Your task to perform on an android device: Search for macbook on ebay, select the first entry, add it to the cart, then select checkout. Image 0: 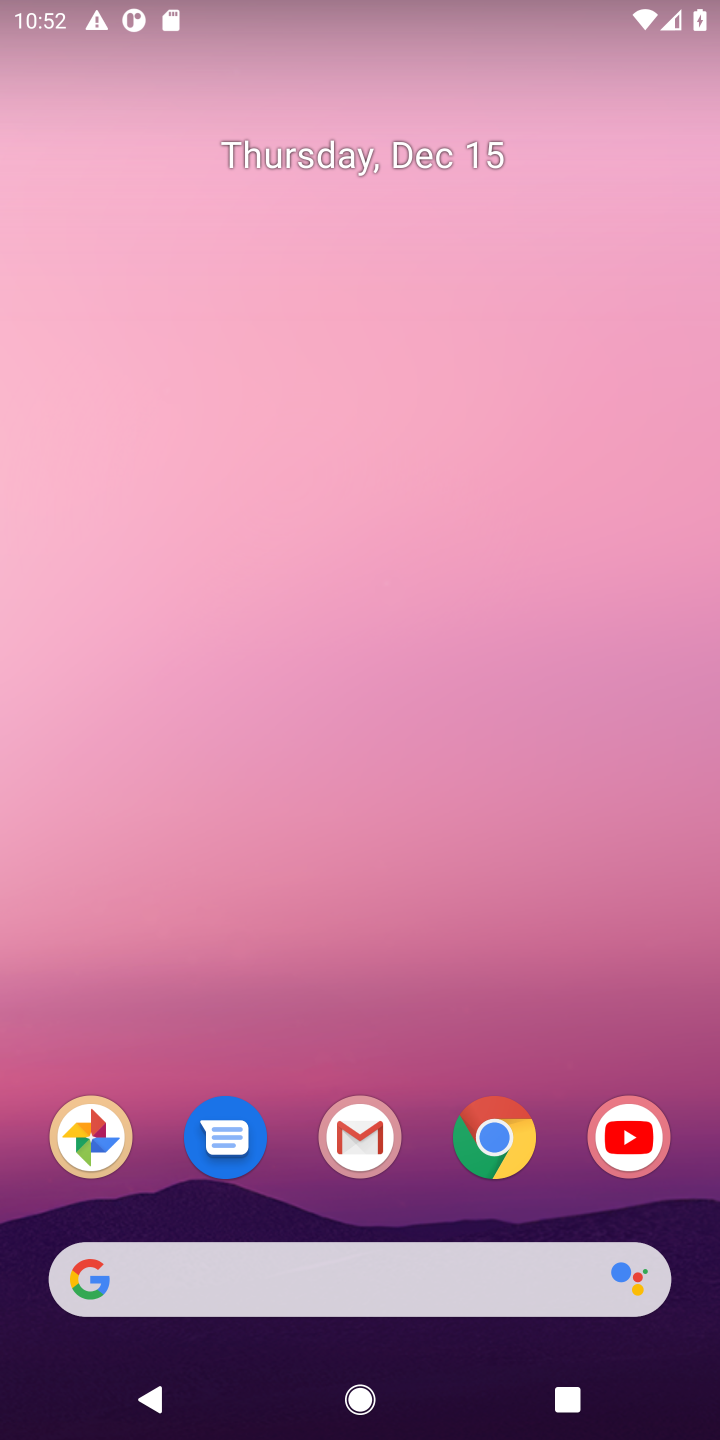
Step 0: press home button
Your task to perform on an android device: Search for macbook on ebay, select the first entry, add it to the cart, then select checkout. Image 1: 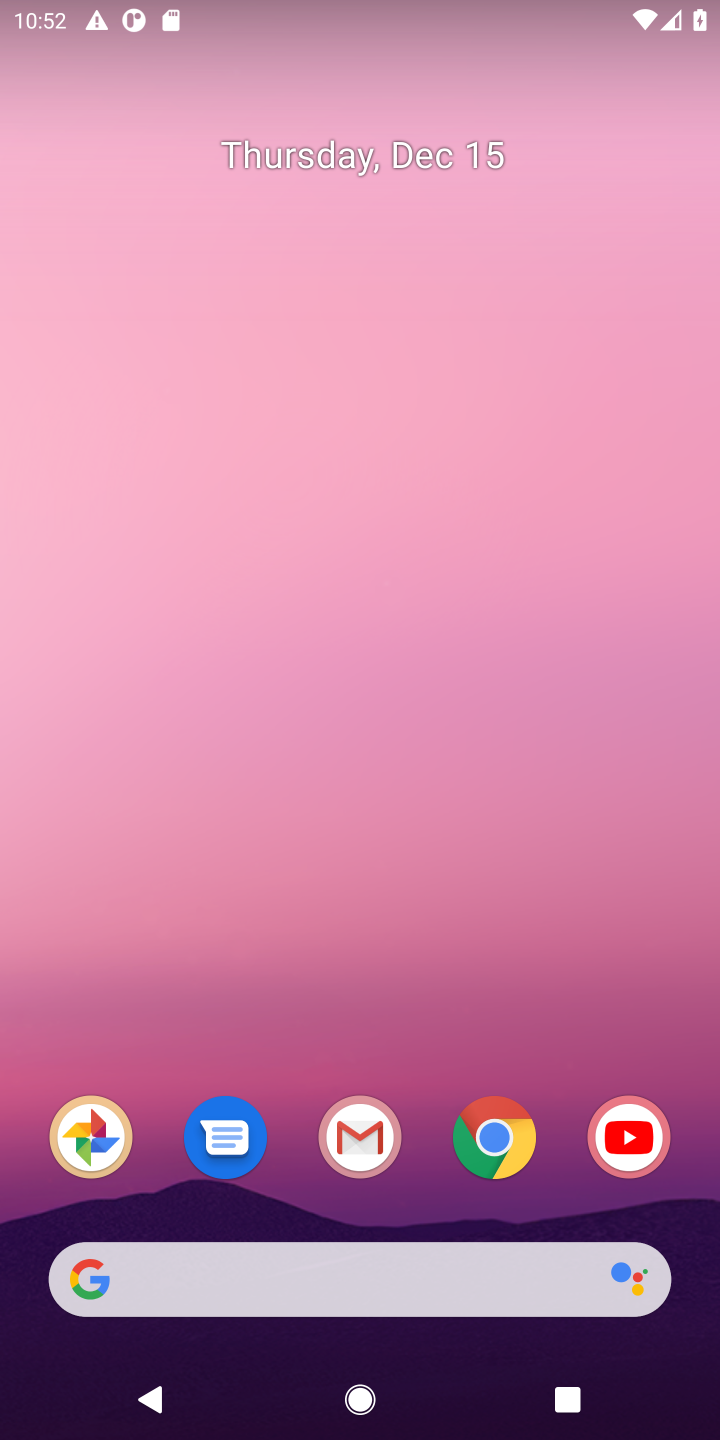
Step 1: drag from (329, 1266) to (254, 265)
Your task to perform on an android device: Search for macbook on ebay, select the first entry, add it to the cart, then select checkout. Image 2: 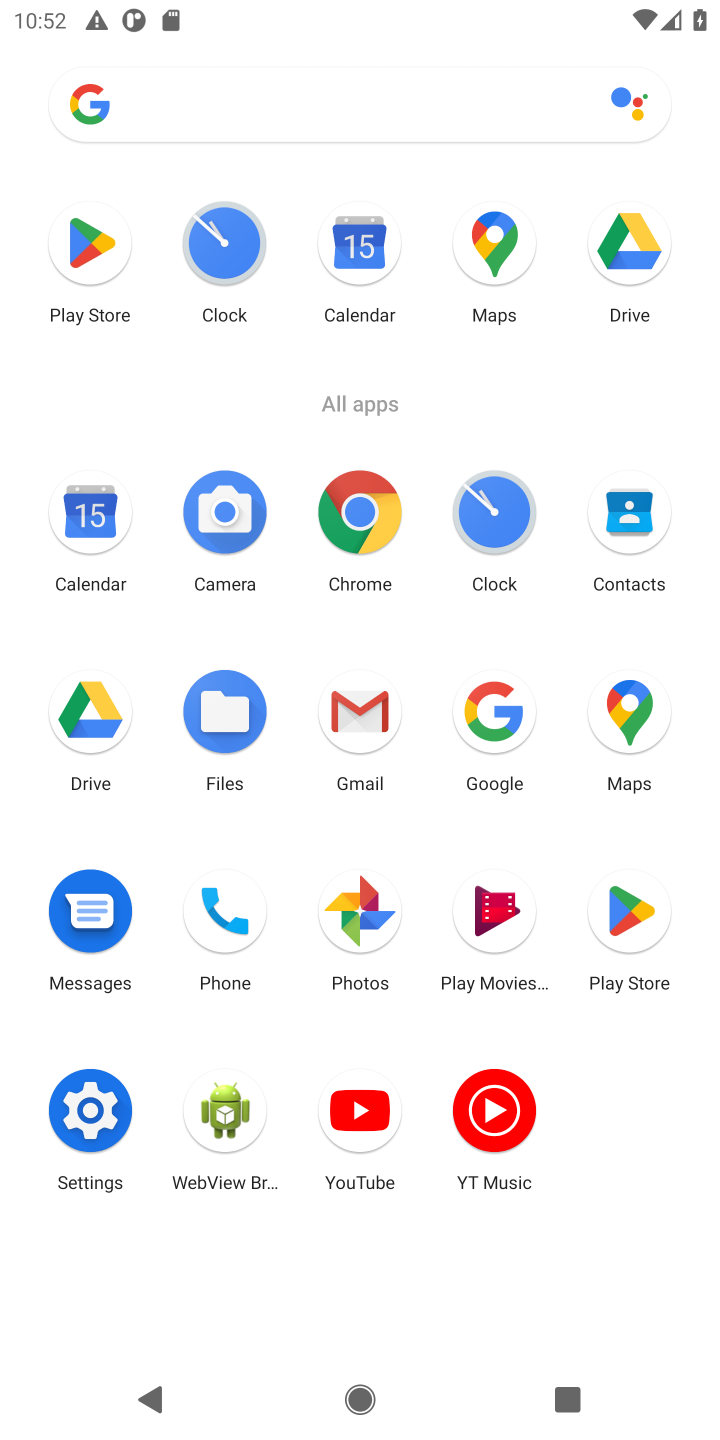
Step 2: click (499, 714)
Your task to perform on an android device: Search for macbook on ebay, select the first entry, add it to the cart, then select checkout. Image 3: 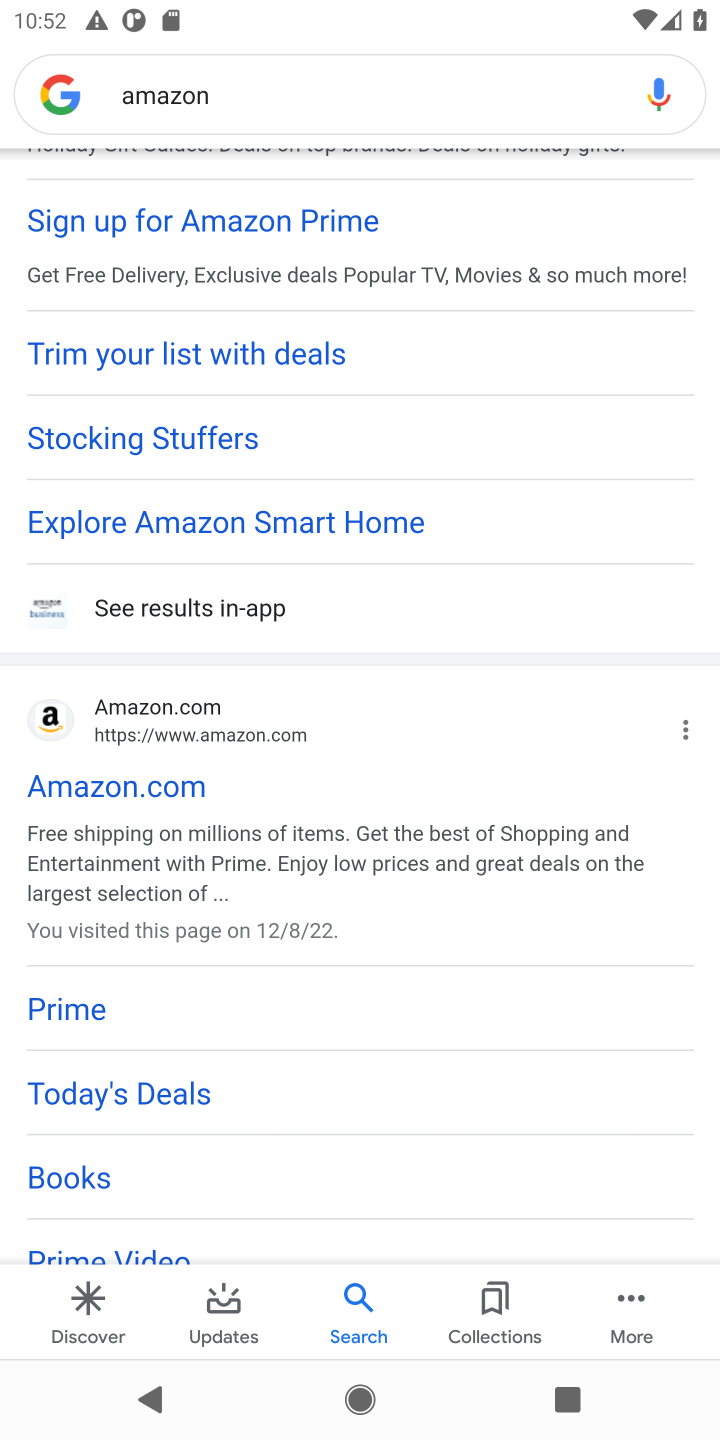
Step 3: click (231, 110)
Your task to perform on an android device: Search for macbook on ebay, select the first entry, add it to the cart, then select checkout. Image 4: 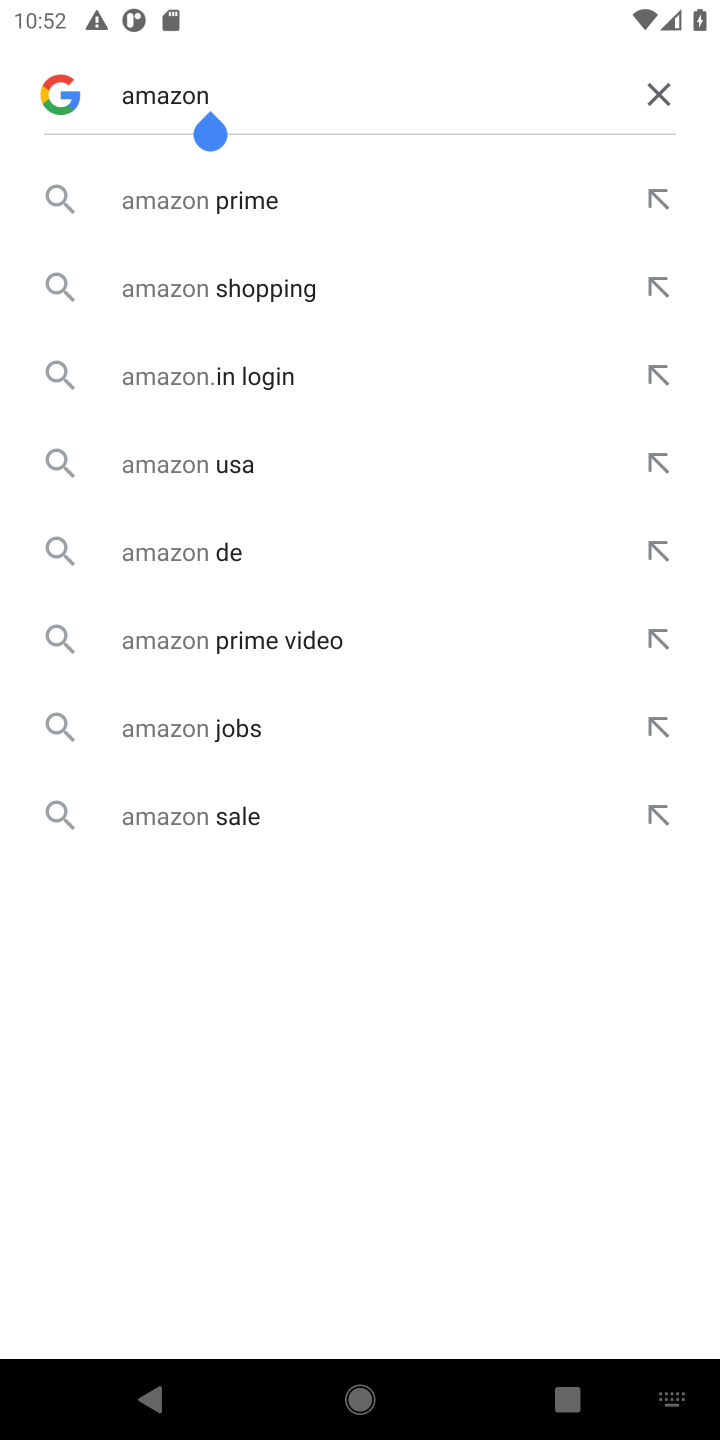
Step 4: click (666, 108)
Your task to perform on an android device: Search for macbook on ebay, select the first entry, add it to the cart, then select checkout. Image 5: 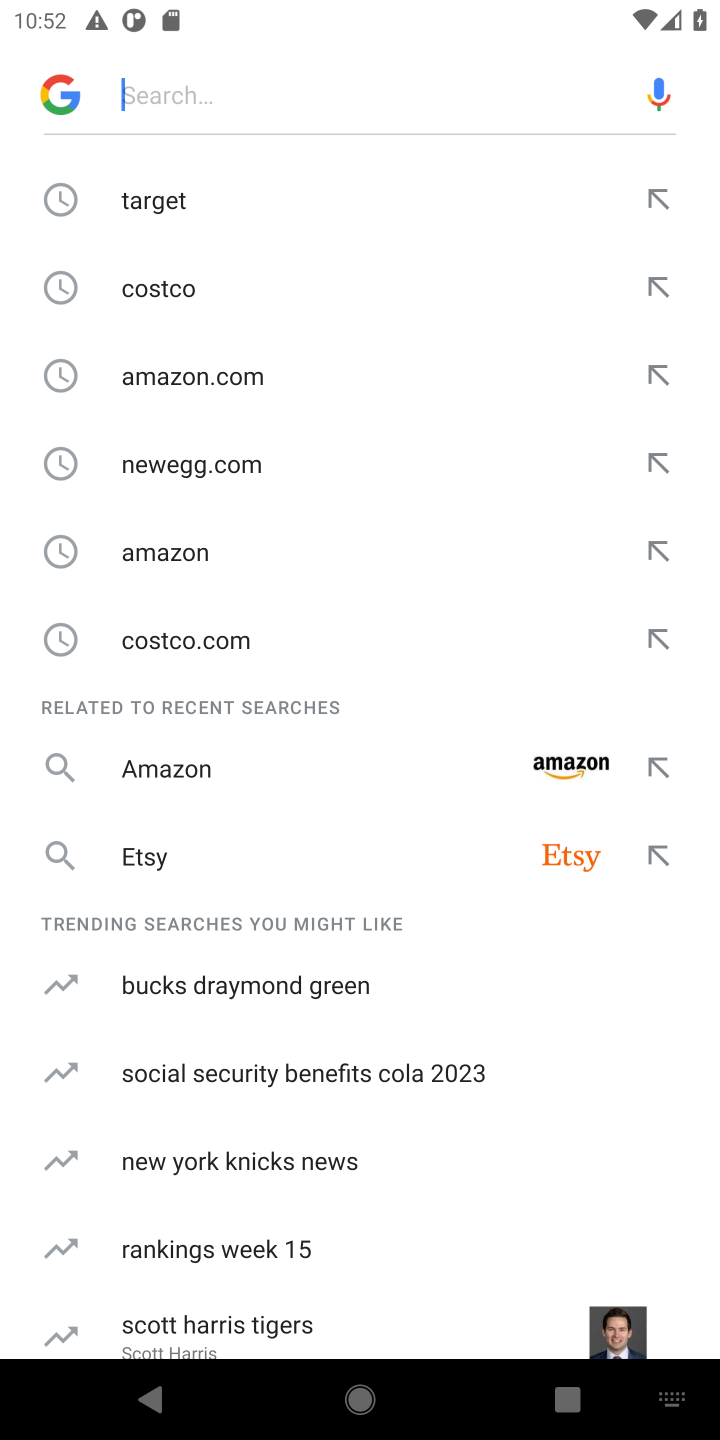
Step 5: drag from (328, 1198) to (328, 387)
Your task to perform on an android device: Search for macbook on ebay, select the first entry, add it to the cart, then select checkout. Image 6: 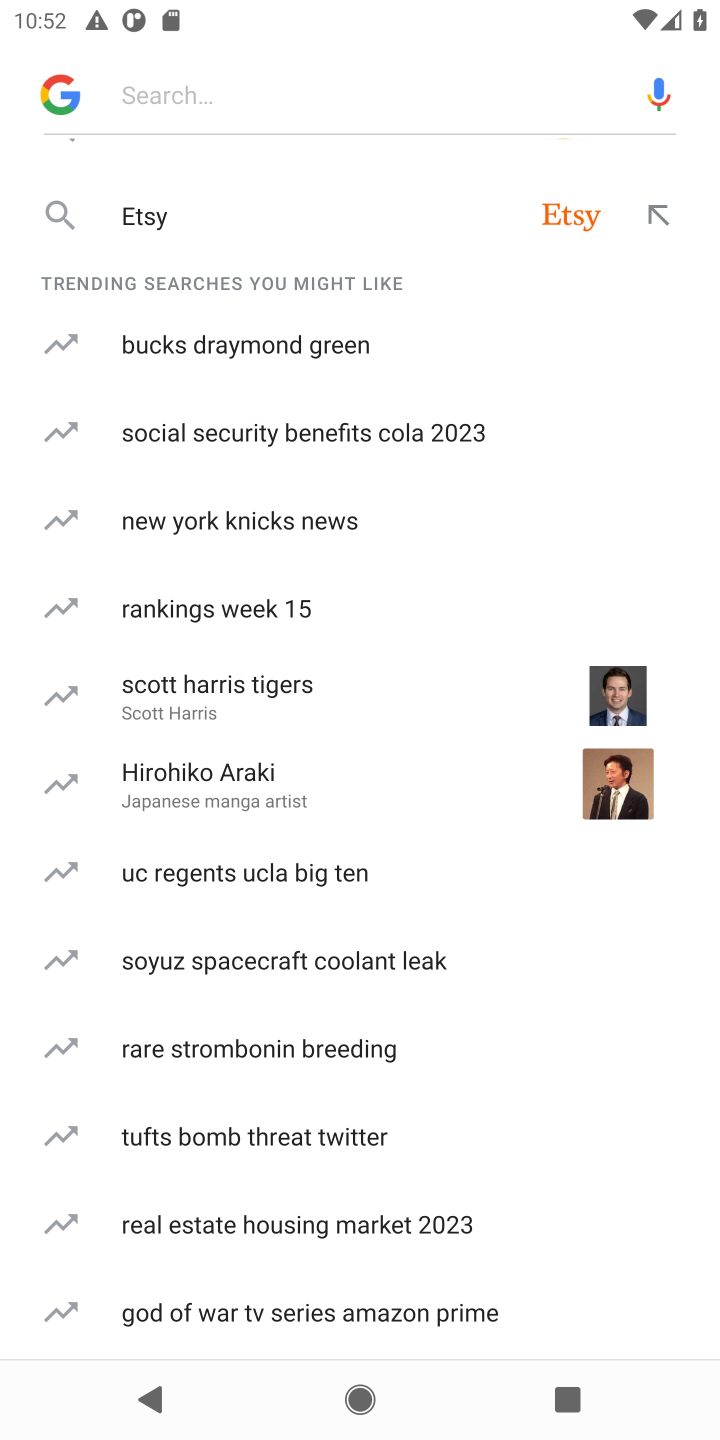
Step 6: type "ebay"
Your task to perform on an android device: Search for macbook on ebay, select the first entry, add it to the cart, then select checkout. Image 7: 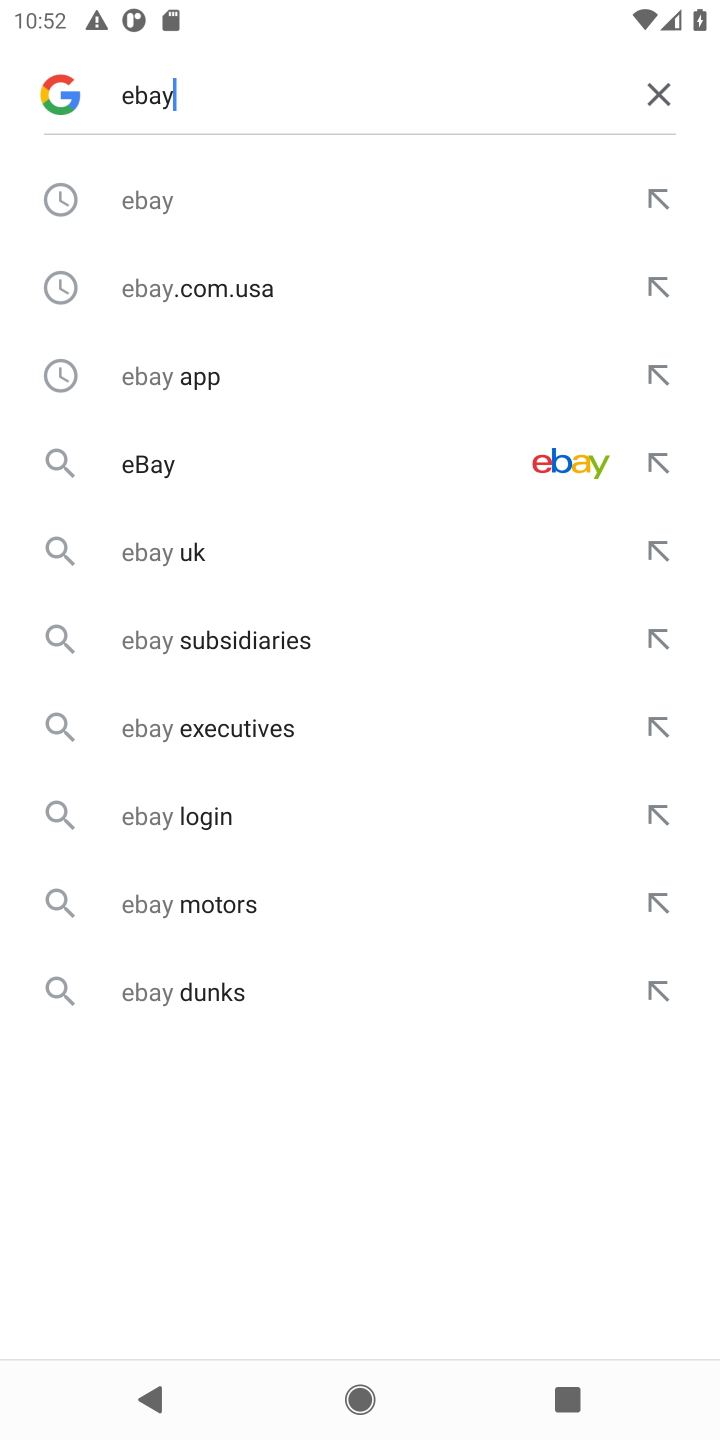
Step 7: click (168, 194)
Your task to perform on an android device: Search for macbook on ebay, select the first entry, add it to the cart, then select checkout. Image 8: 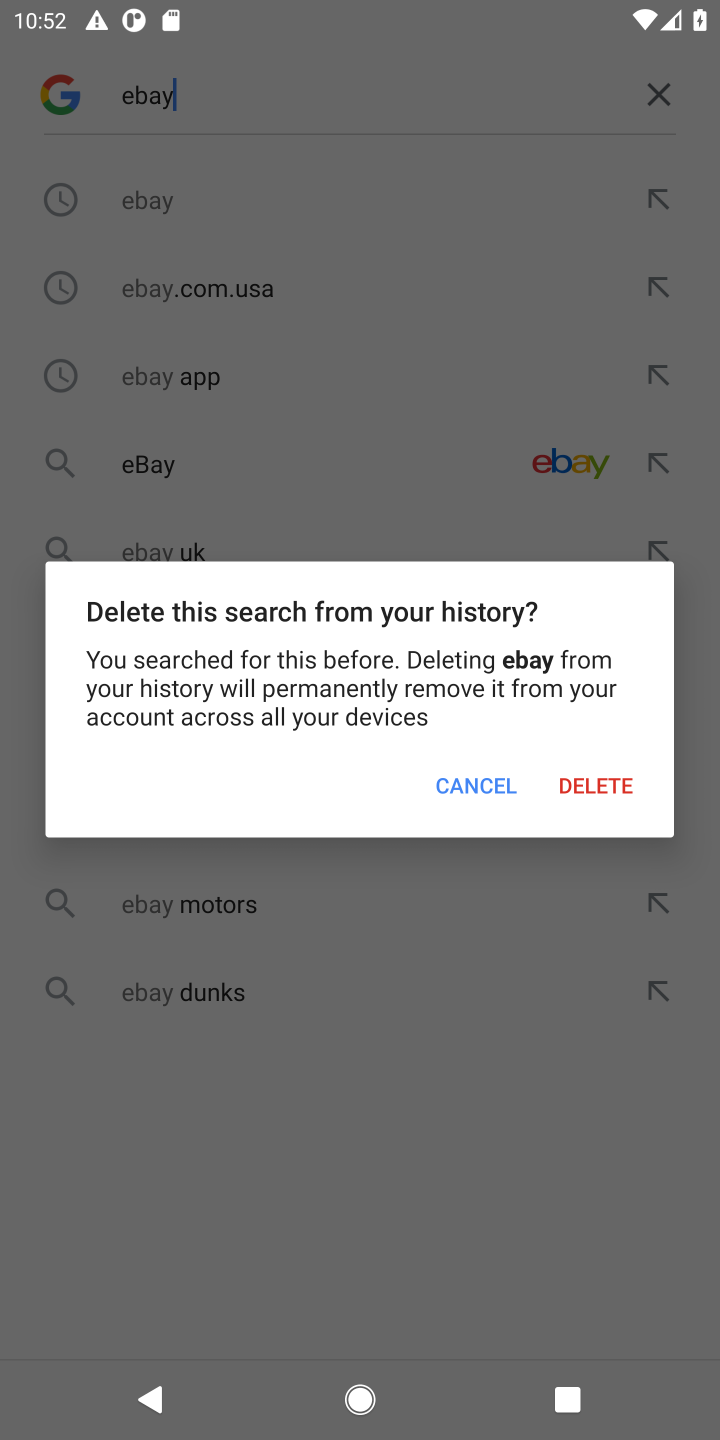
Step 8: click (479, 782)
Your task to perform on an android device: Search for macbook on ebay, select the first entry, add it to the cart, then select checkout. Image 9: 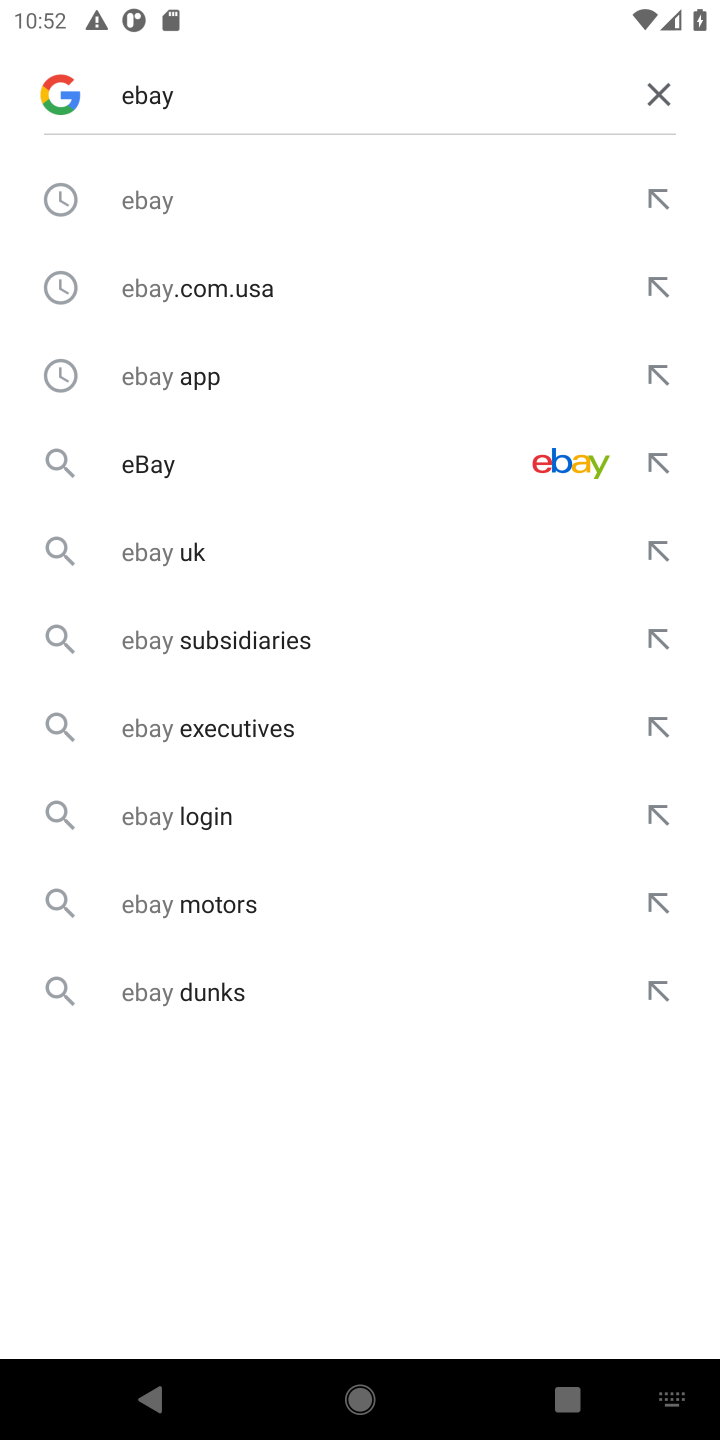
Step 9: click (660, 199)
Your task to perform on an android device: Search for macbook on ebay, select the first entry, add it to the cart, then select checkout. Image 10: 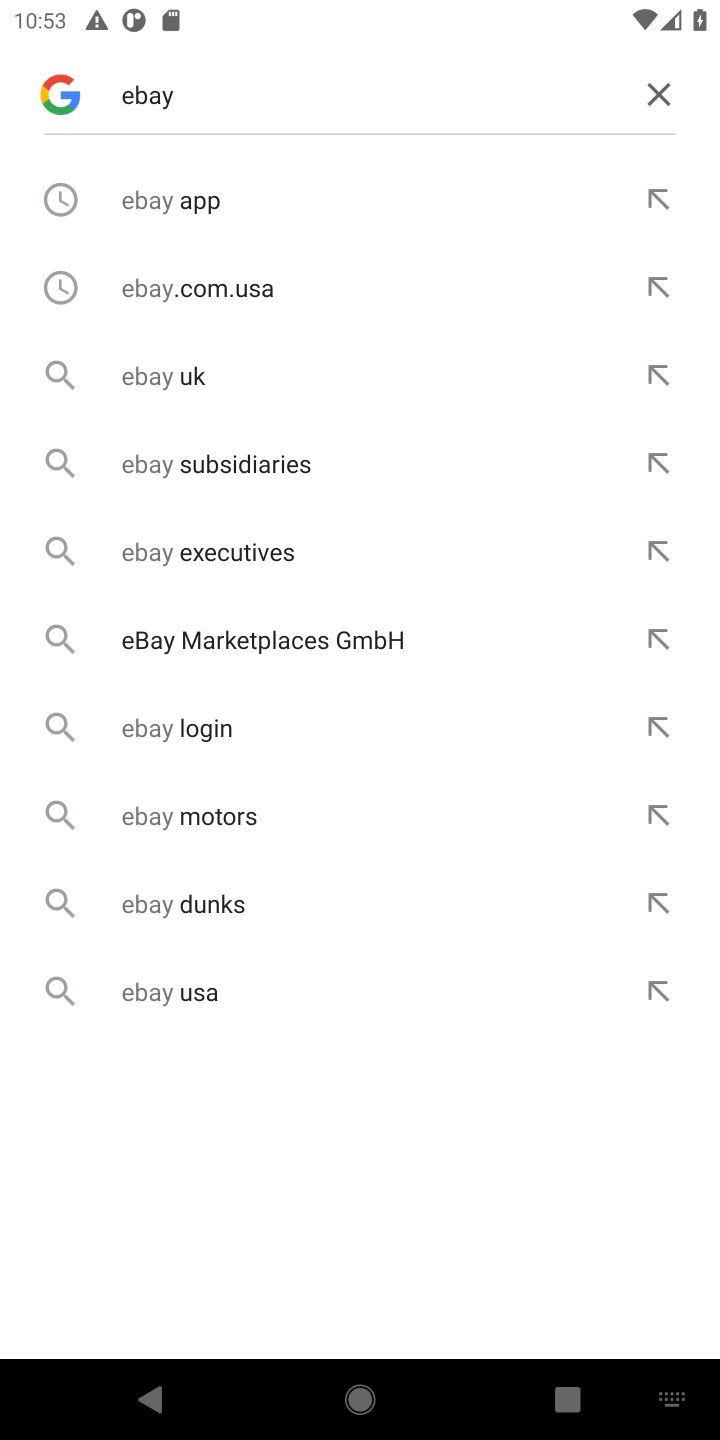
Step 10: click (176, 199)
Your task to perform on an android device: Search for macbook on ebay, select the first entry, add it to the cart, then select checkout. Image 11: 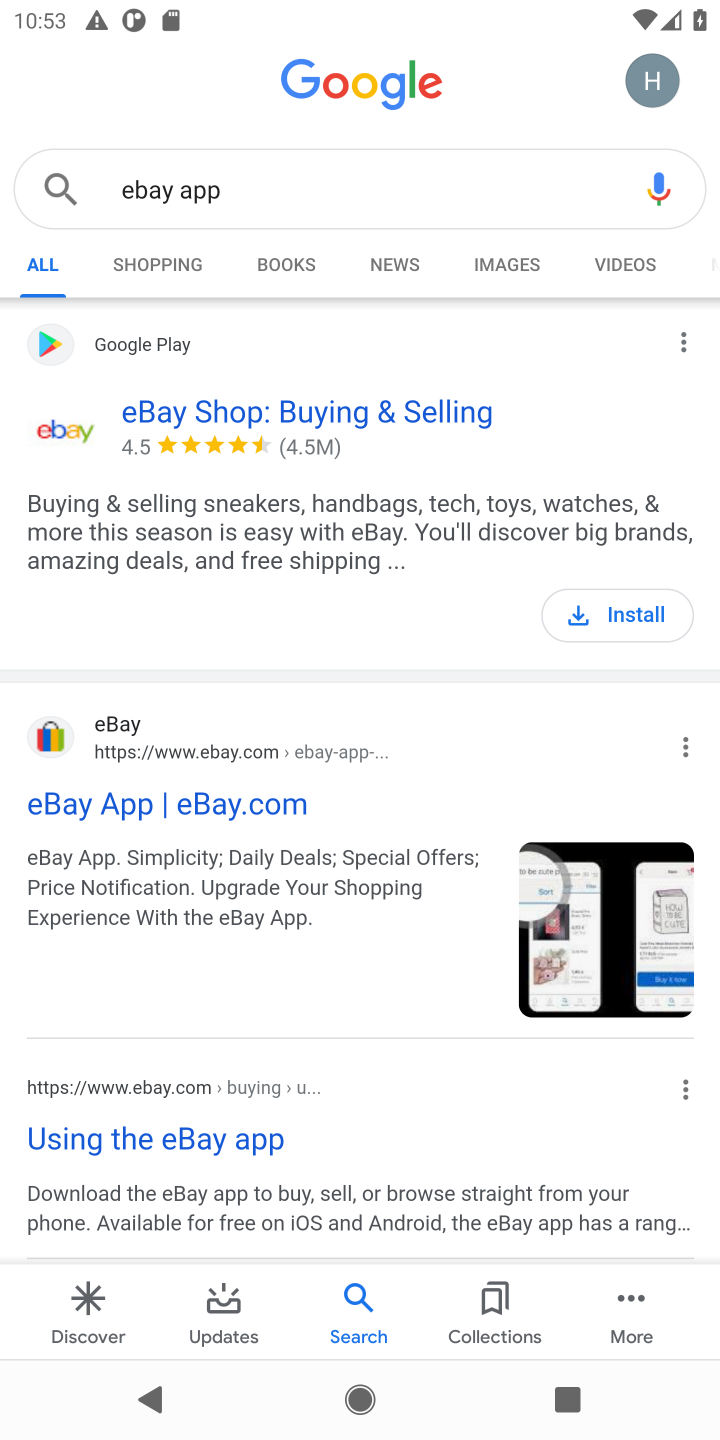
Step 11: click (107, 807)
Your task to perform on an android device: Search for macbook on ebay, select the first entry, add it to the cart, then select checkout. Image 12: 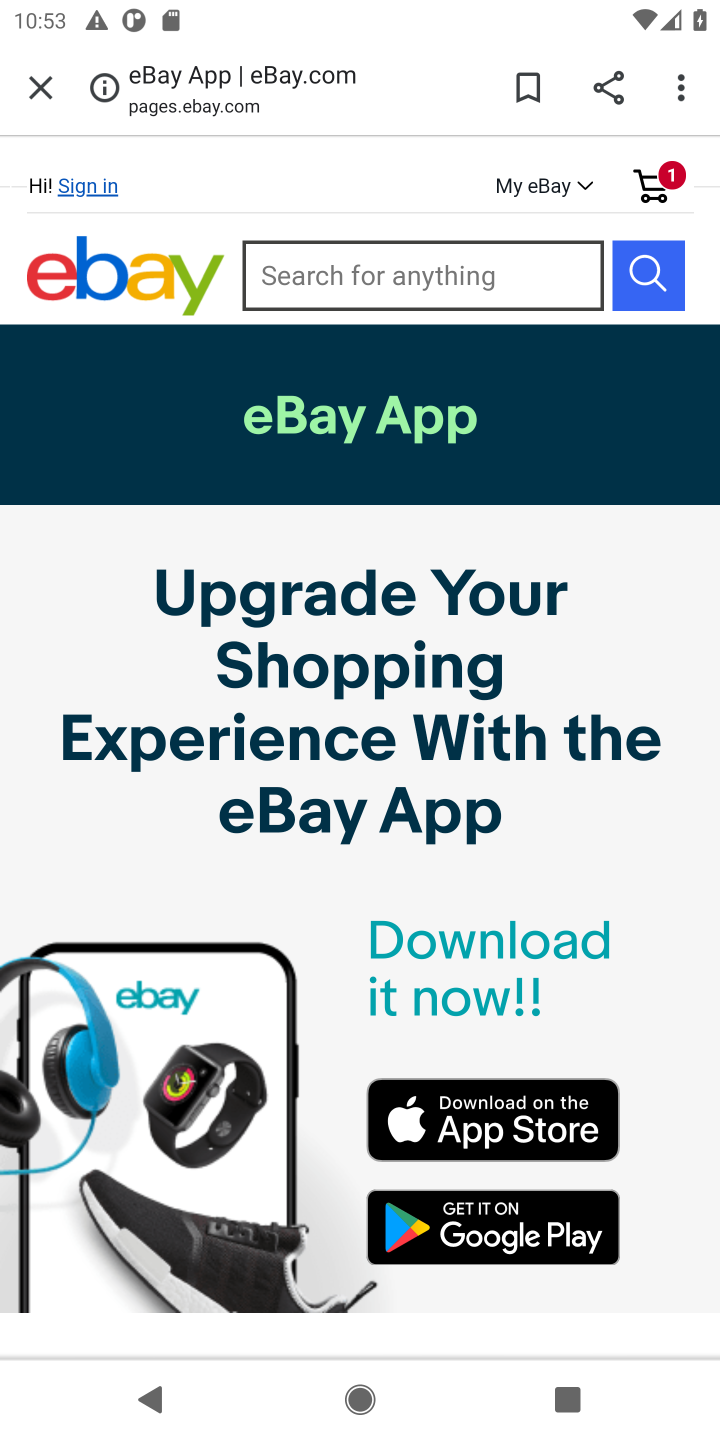
Step 12: click (300, 275)
Your task to perform on an android device: Search for macbook on ebay, select the first entry, add it to the cart, then select checkout. Image 13: 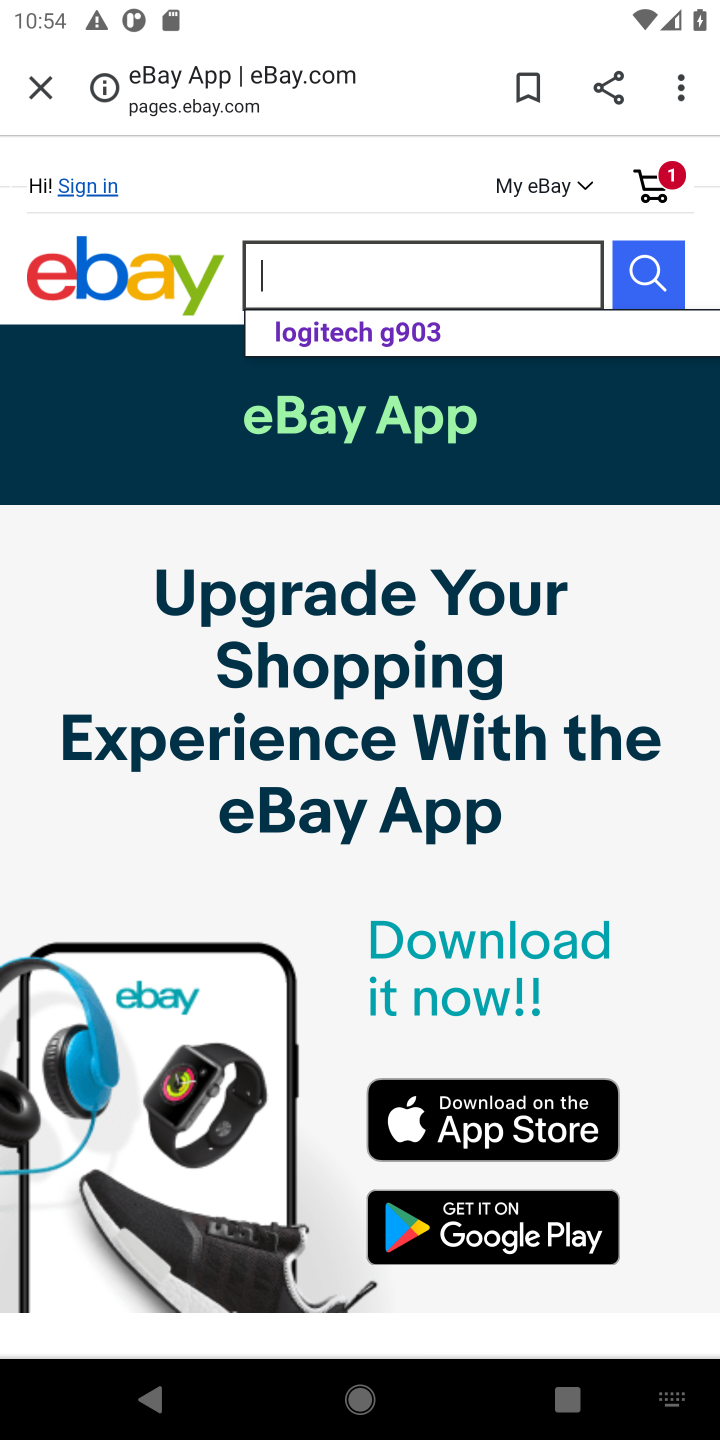
Step 13: type "macbook"
Your task to perform on an android device: Search for macbook on ebay, select the first entry, add it to the cart, then select checkout. Image 14: 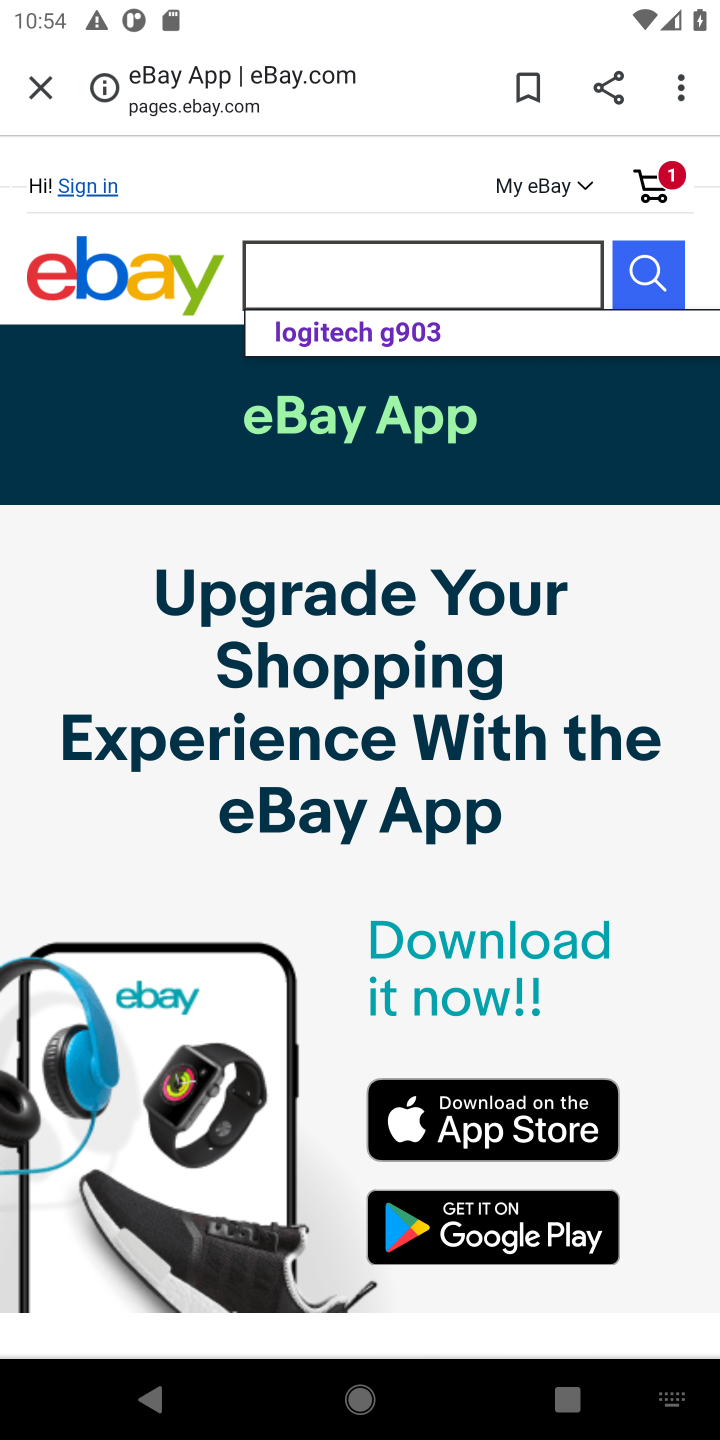
Step 14: click (642, 268)
Your task to perform on an android device: Search for macbook on ebay, select the first entry, add it to the cart, then select checkout. Image 15: 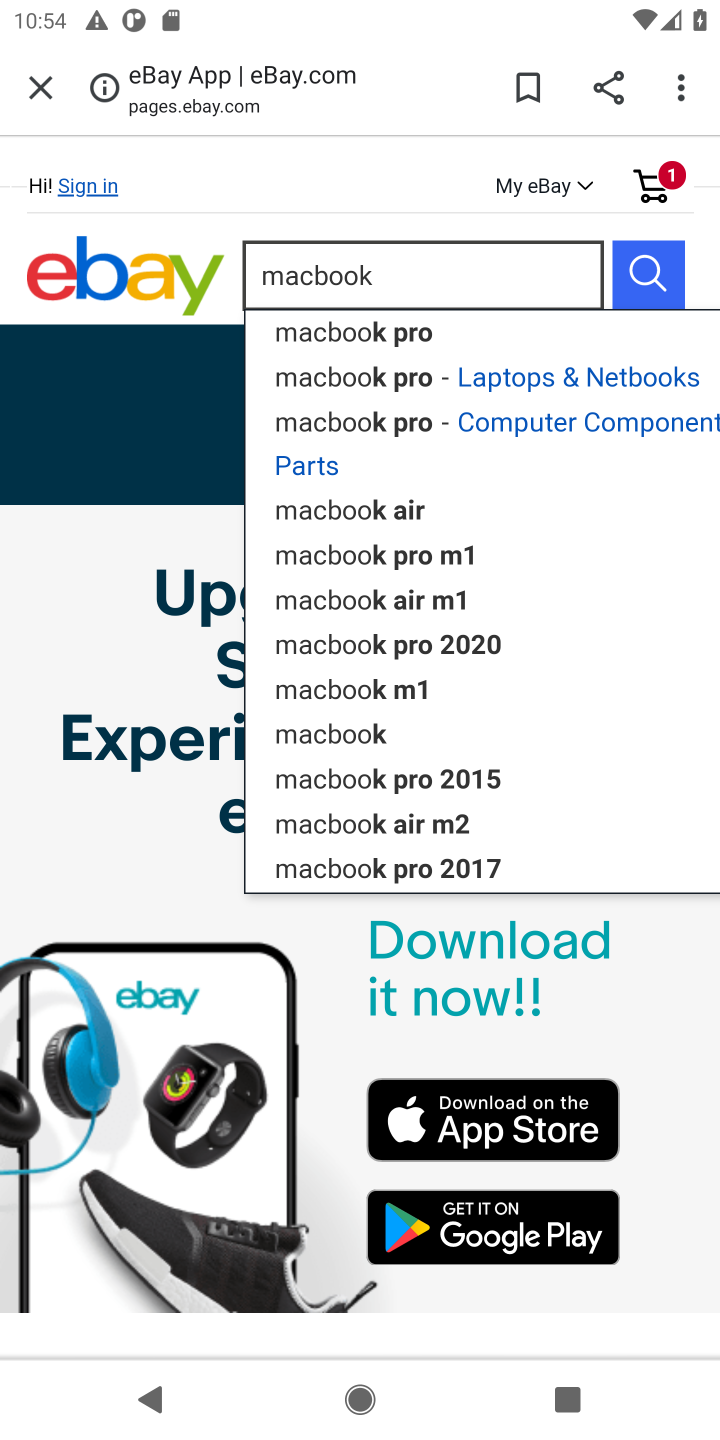
Step 15: click (351, 734)
Your task to perform on an android device: Search for macbook on ebay, select the first entry, add it to the cart, then select checkout. Image 16: 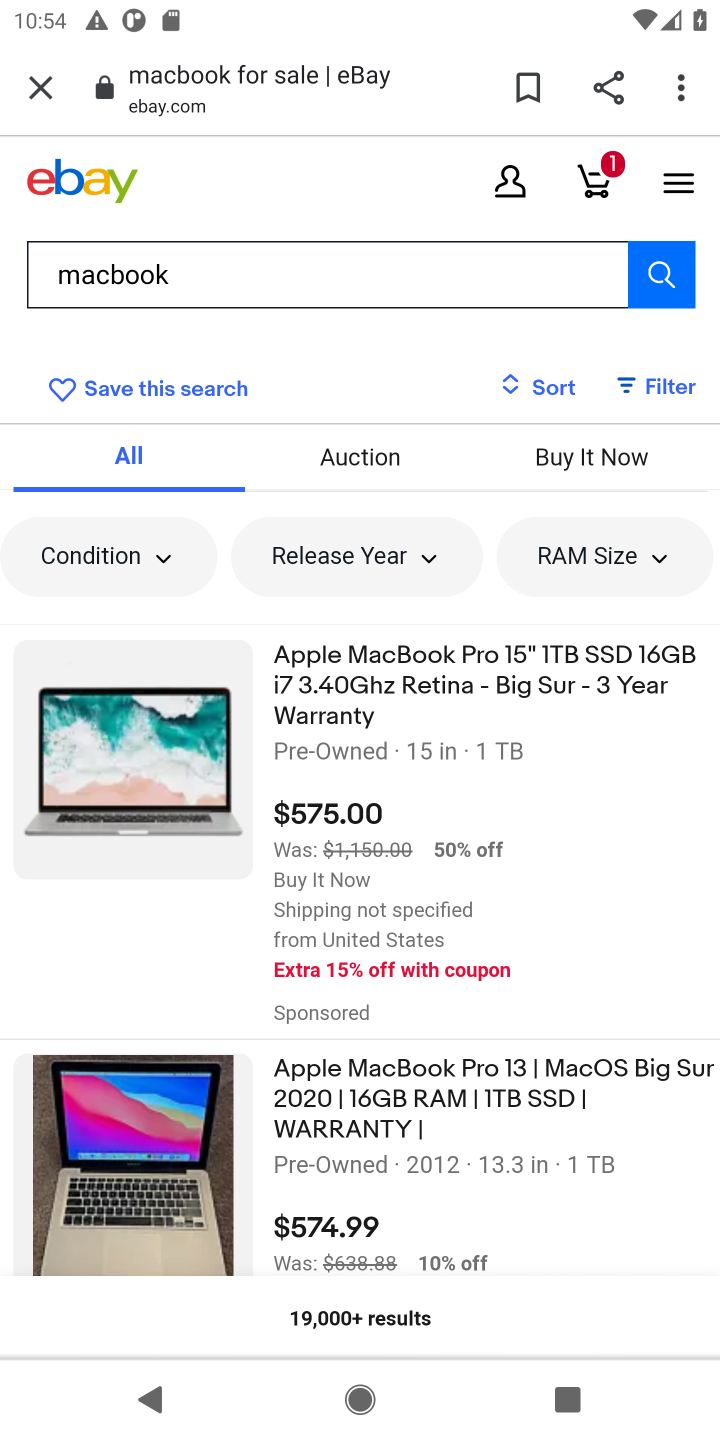
Step 16: click (335, 686)
Your task to perform on an android device: Search for macbook on ebay, select the first entry, add it to the cart, then select checkout. Image 17: 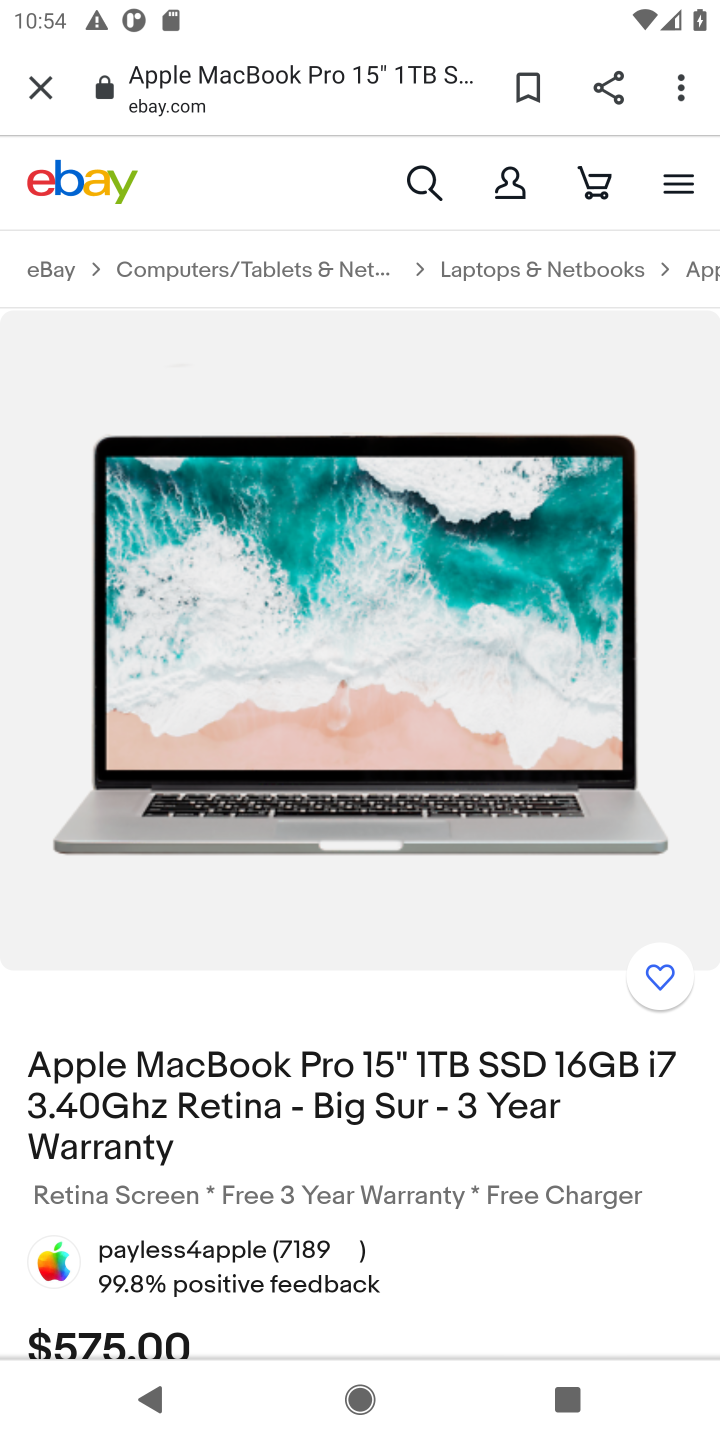
Step 17: drag from (473, 1171) to (505, 626)
Your task to perform on an android device: Search for macbook on ebay, select the first entry, add it to the cart, then select checkout. Image 18: 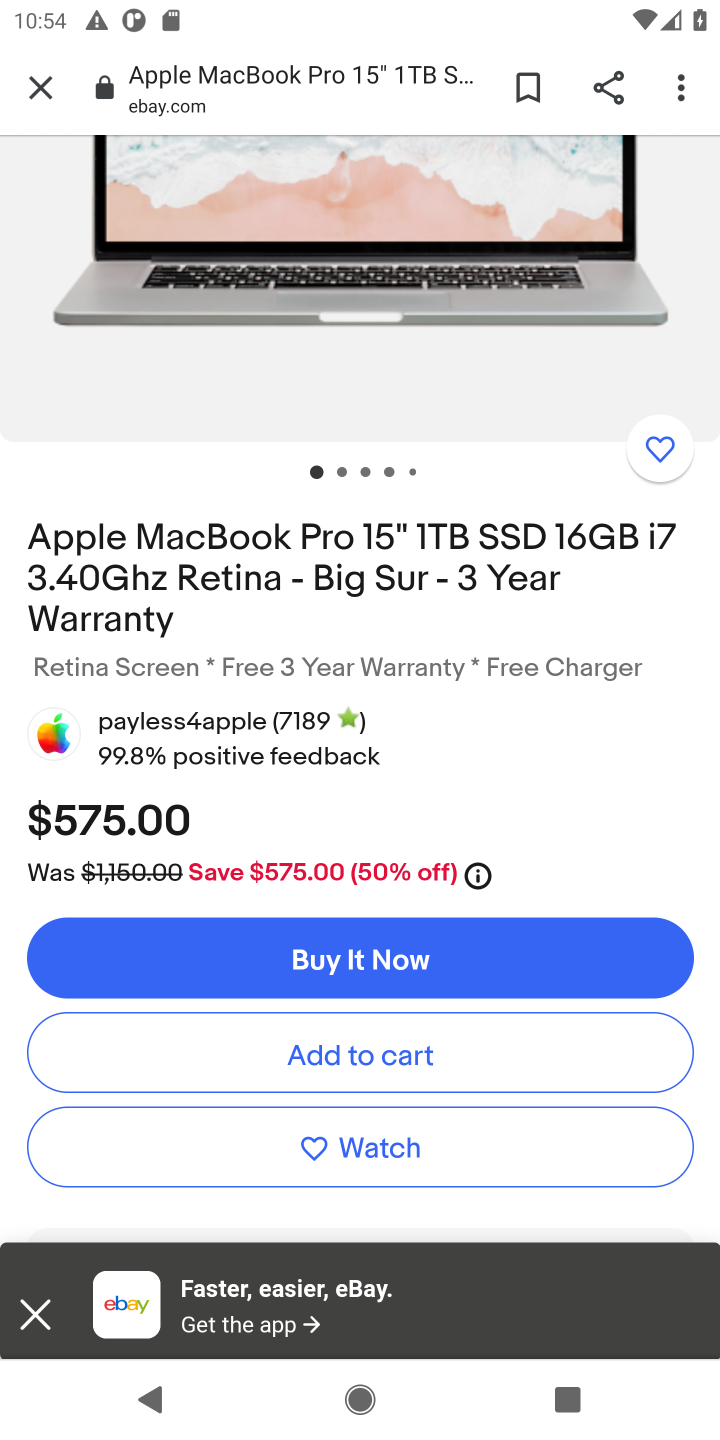
Step 18: click (403, 1050)
Your task to perform on an android device: Search for macbook on ebay, select the first entry, add it to the cart, then select checkout. Image 19: 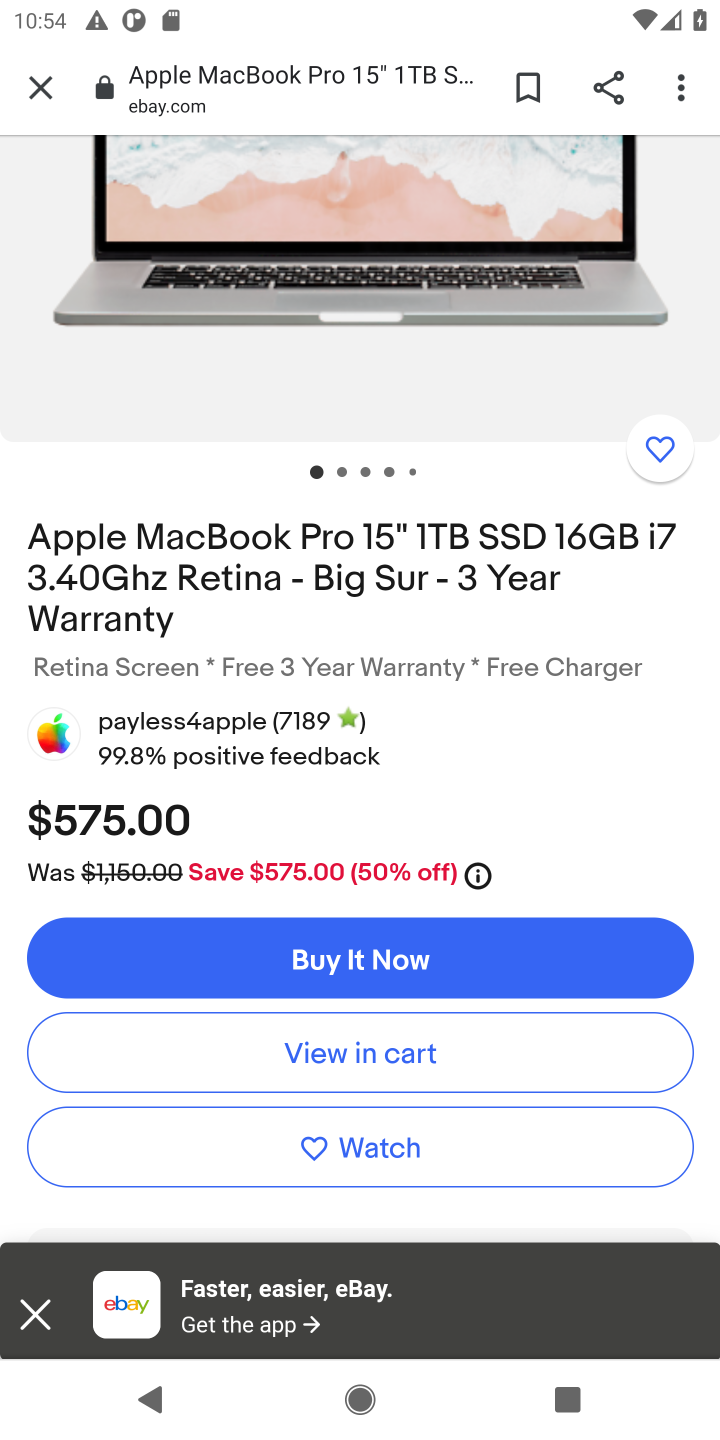
Step 19: click (403, 1050)
Your task to perform on an android device: Search for macbook on ebay, select the first entry, add it to the cart, then select checkout. Image 20: 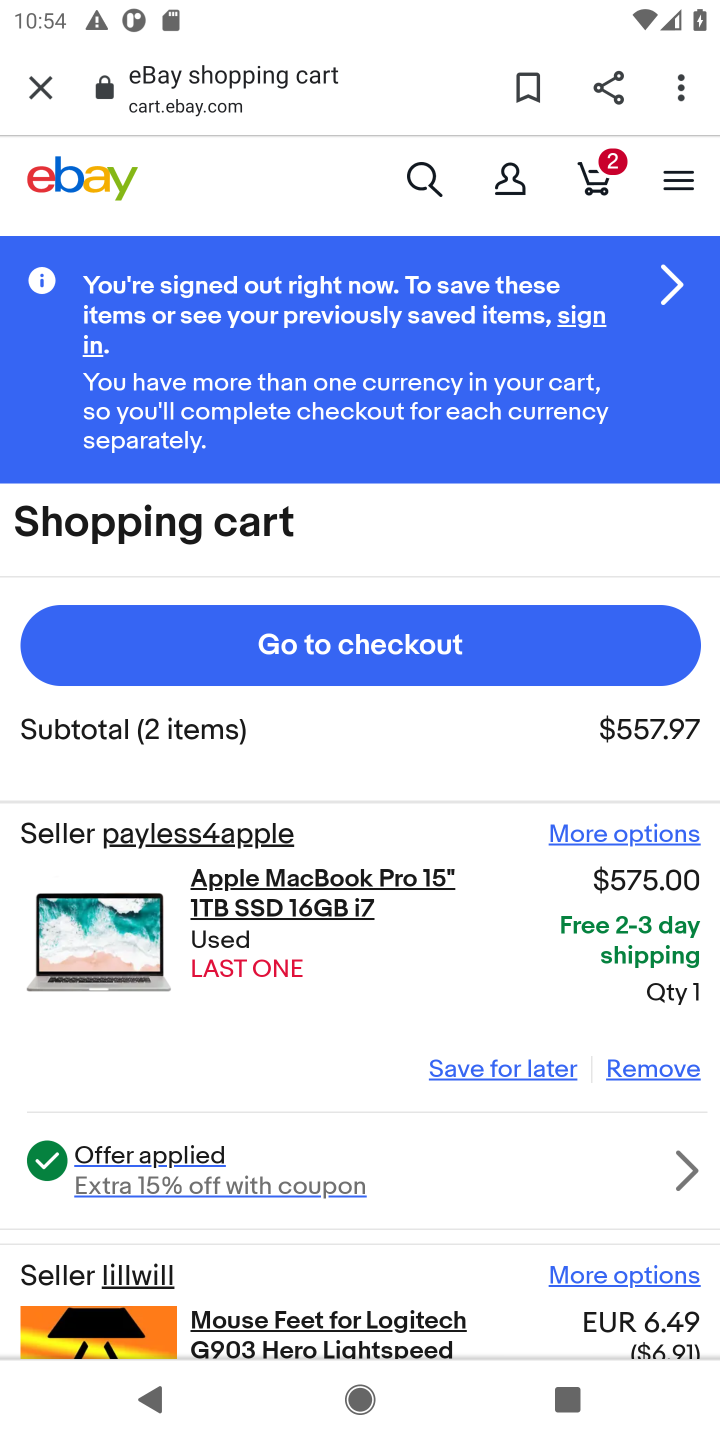
Step 20: click (336, 646)
Your task to perform on an android device: Search for macbook on ebay, select the first entry, add it to the cart, then select checkout. Image 21: 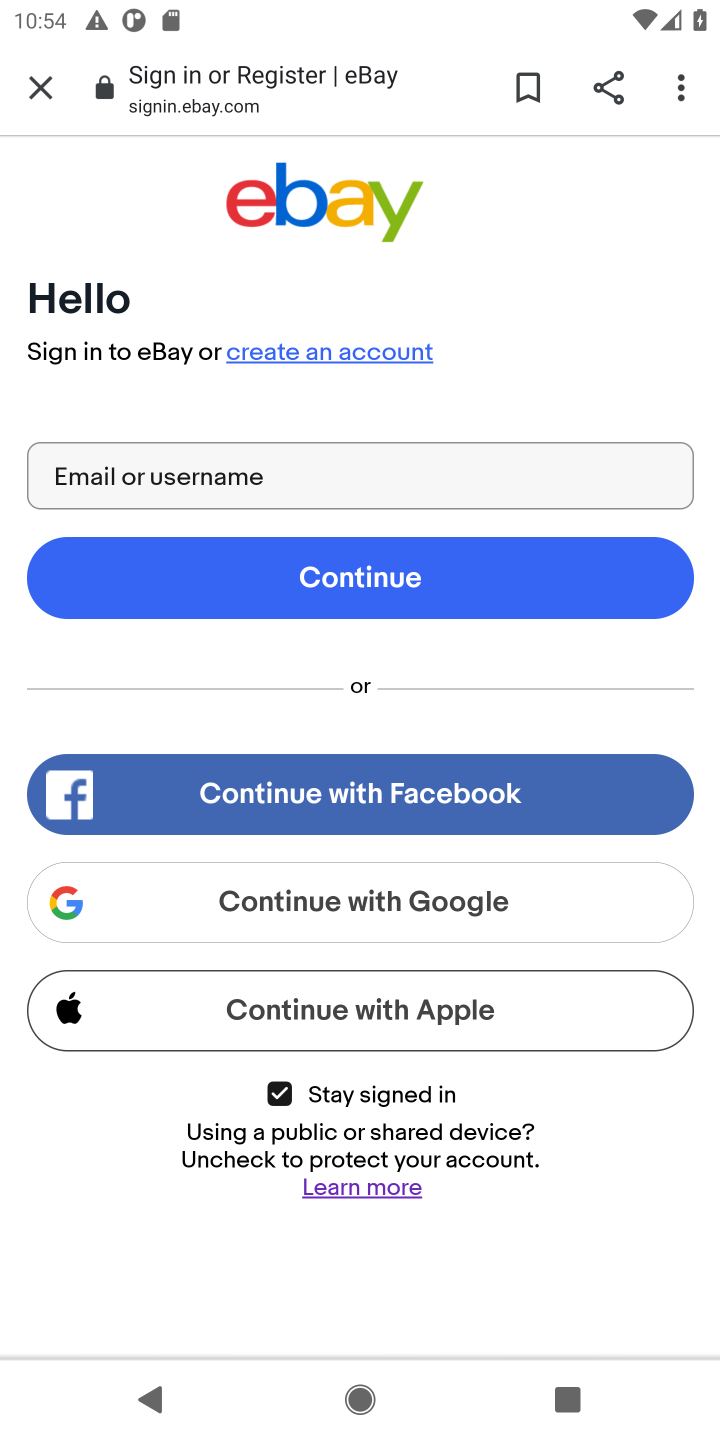
Step 21: task complete